Your task to perform on an android device: Open calendar and show me the fourth week of next month Image 0: 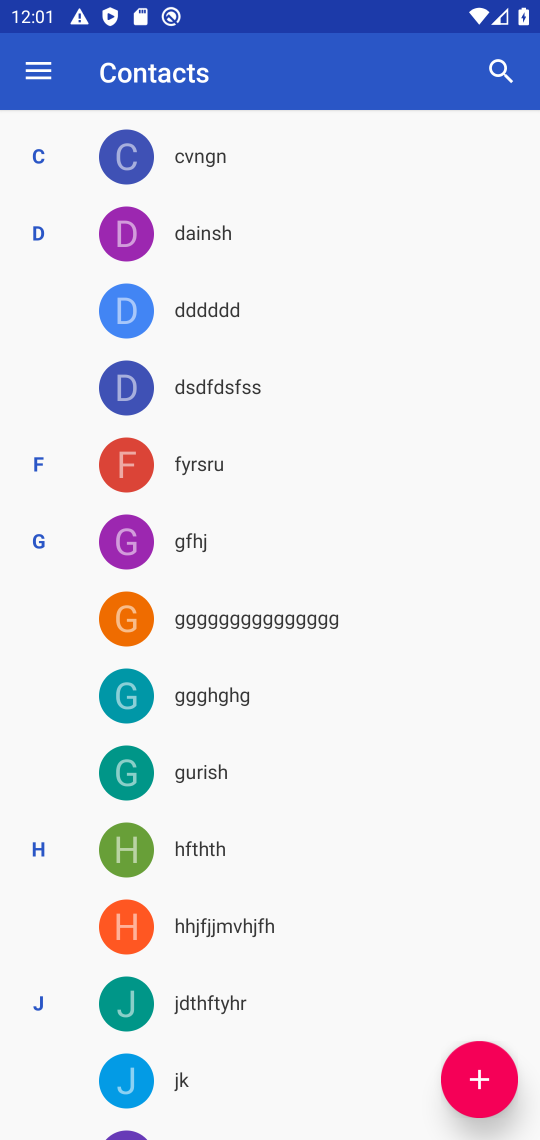
Step 0: press home button
Your task to perform on an android device: Open calendar and show me the fourth week of next month Image 1: 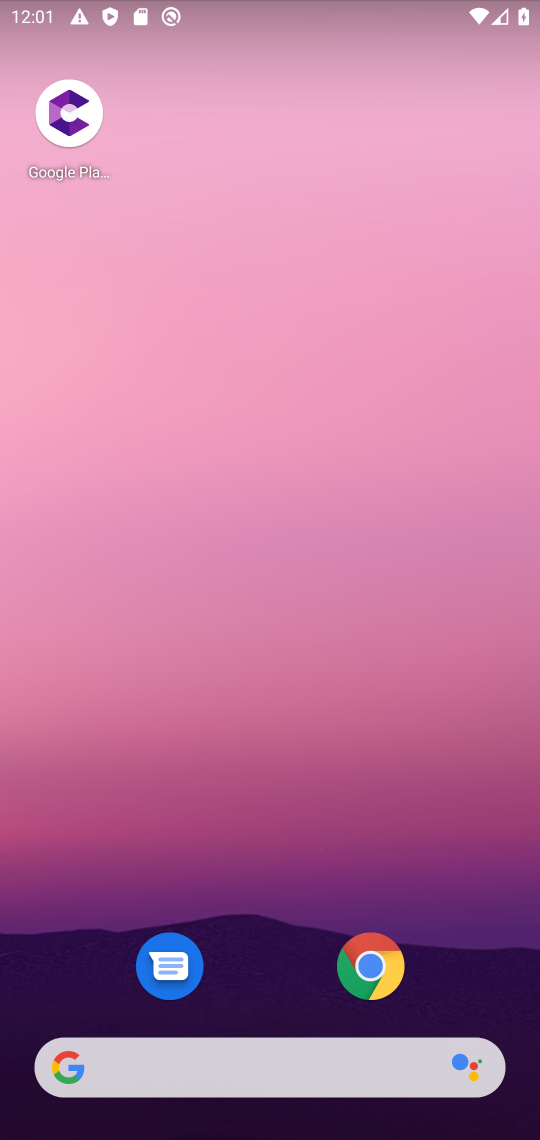
Step 1: drag from (204, 919) to (204, 179)
Your task to perform on an android device: Open calendar and show me the fourth week of next month Image 2: 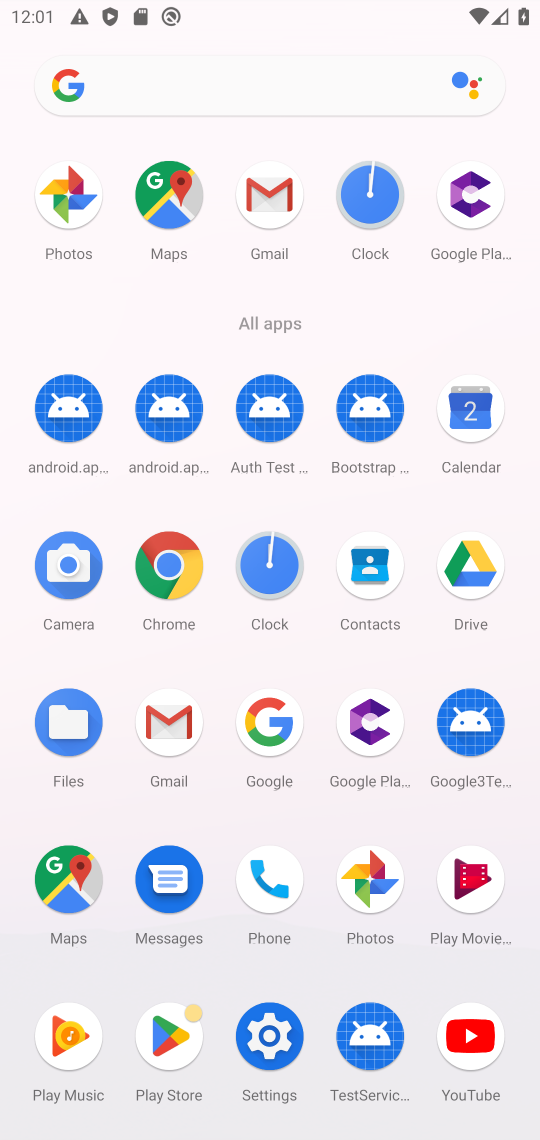
Step 2: click (447, 436)
Your task to perform on an android device: Open calendar and show me the fourth week of next month Image 3: 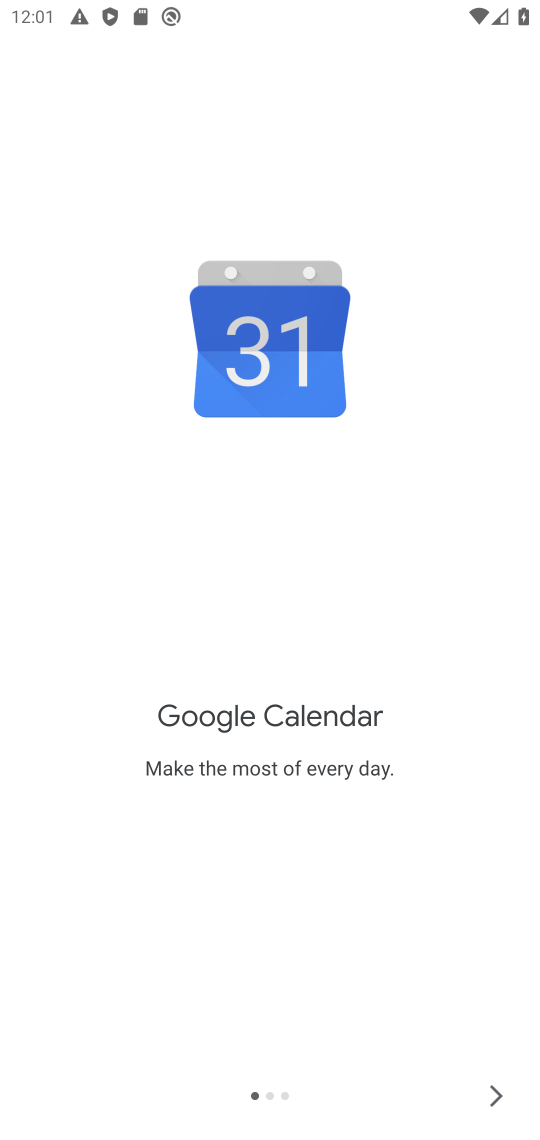
Step 3: click (496, 1097)
Your task to perform on an android device: Open calendar and show me the fourth week of next month Image 4: 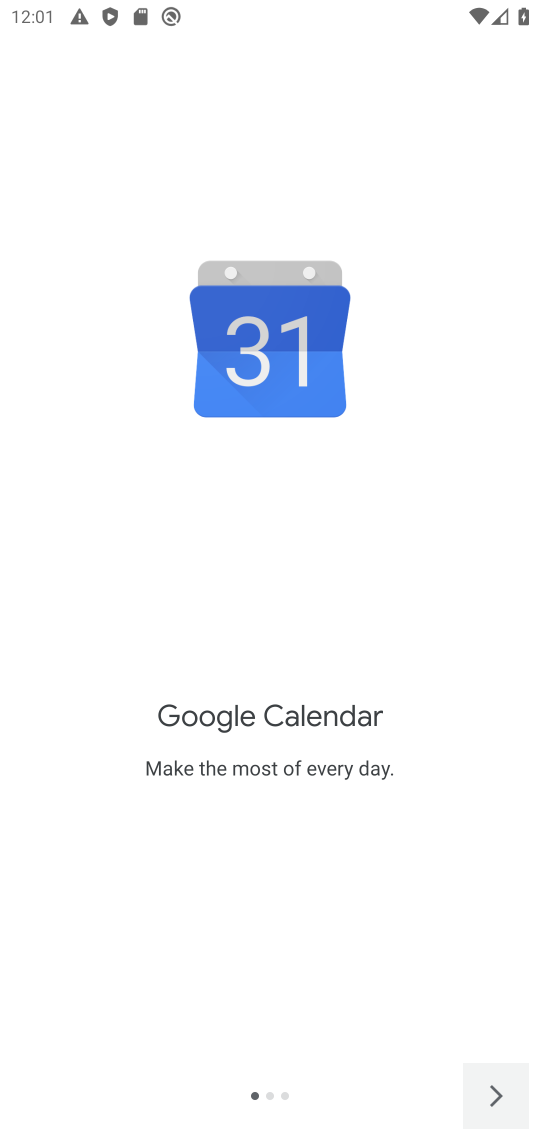
Step 4: click (496, 1097)
Your task to perform on an android device: Open calendar and show me the fourth week of next month Image 5: 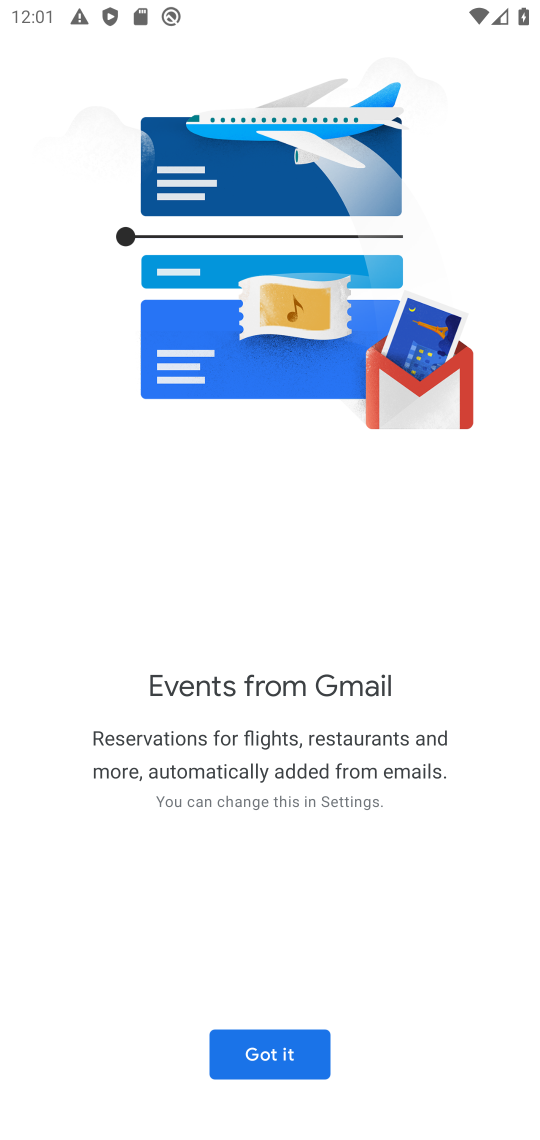
Step 5: click (318, 1047)
Your task to perform on an android device: Open calendar and show me the fourth week of next month Image 6: 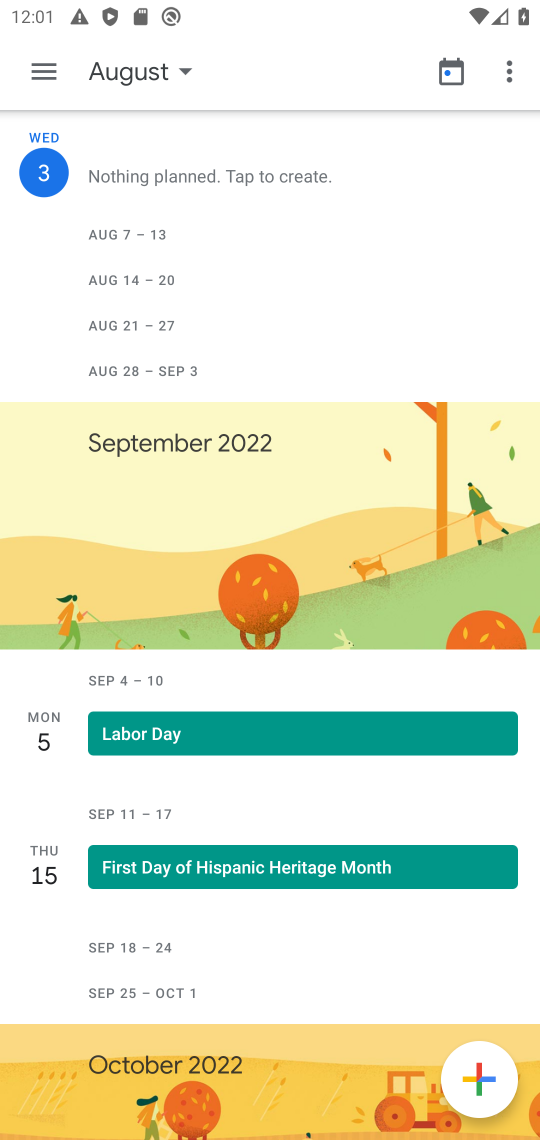
Step 6: click (180, 80)
Your task to perform on an android device: Open calendar and show me the fourth week of next month Image 7: 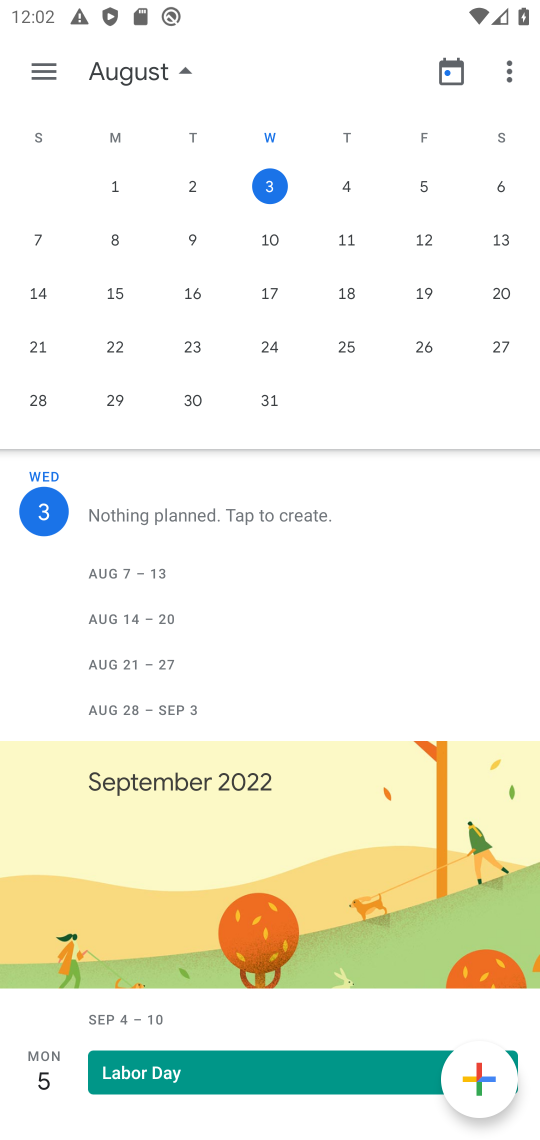
Step 7: drag from (416, 257) to (2, 256)
Your task to perform on an android device: Open calendar and show me the fourth week of next month Image 8: 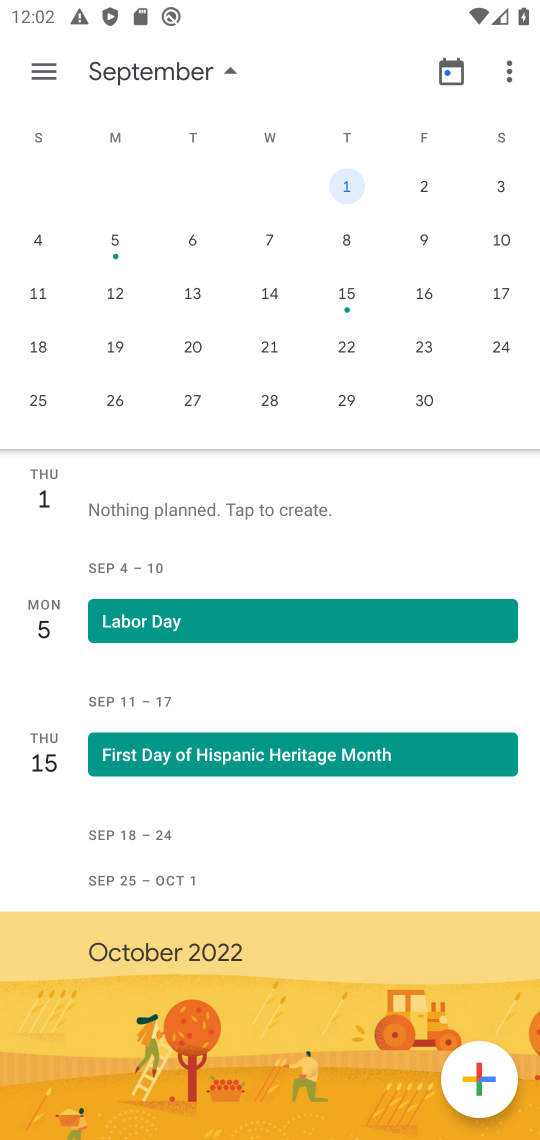
Step 8: click (28, 351)
Your task to perform on an android device: Open calendar and show me the fourth week of next month Image 9: 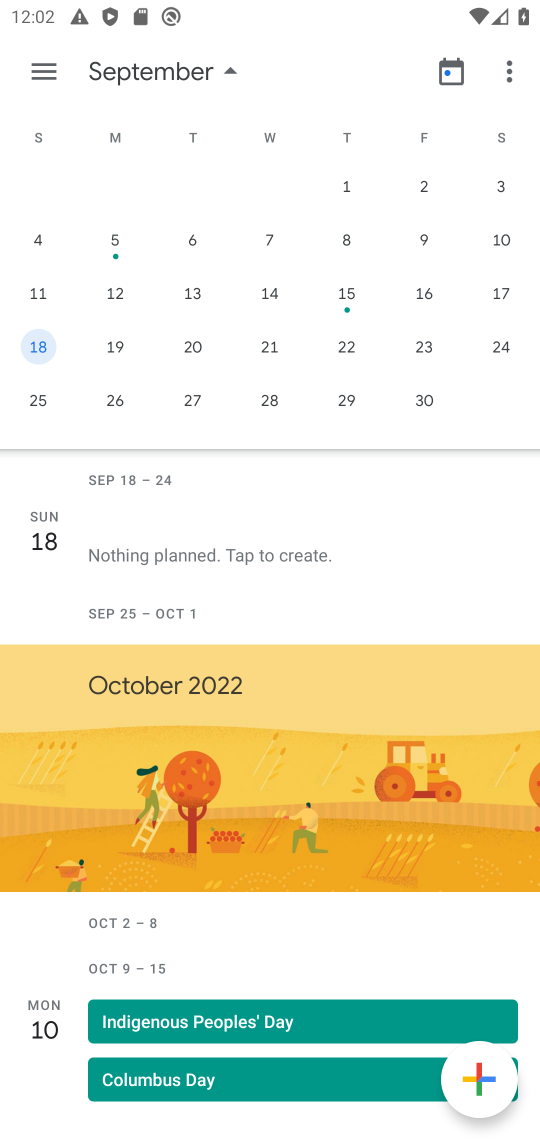
Step 9: task complete